Your task to perform on an android device: When is my next appointment? Image 0: 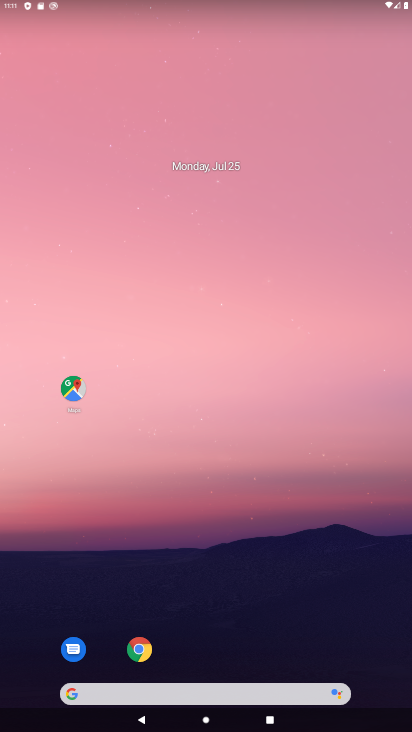
Step 0: click (239, 24)
Your task to perform on an android device: When is my next appointment? Image 1: 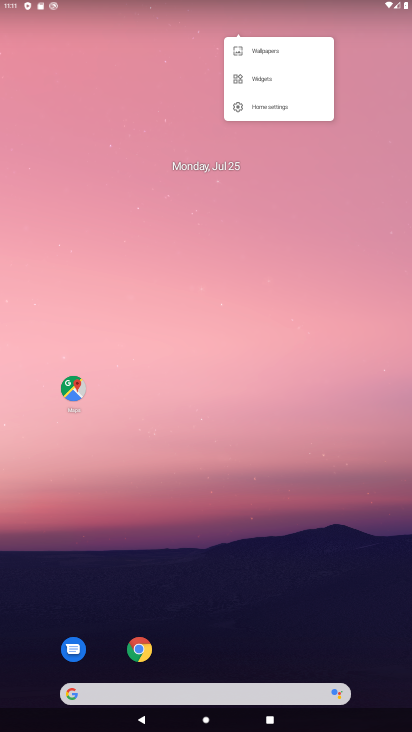
Step 1: click (186, 662)
Your task to perform on an android device: When is my next appointment? Image 2: 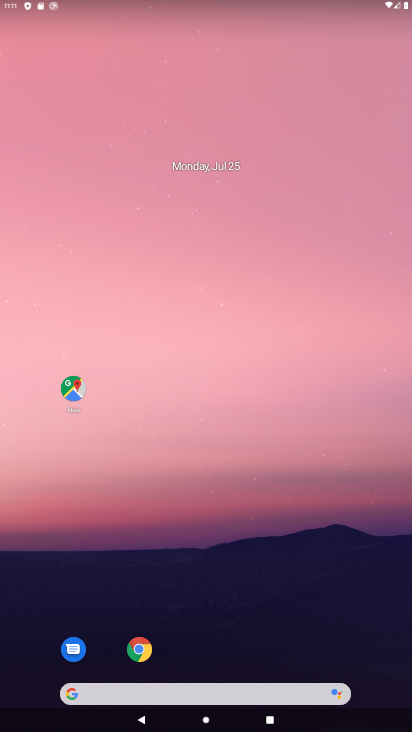
Step 2: drag from (285, 271) to (299, 230)
Your task to perform on an android device: When is my next appointment? Image 3: 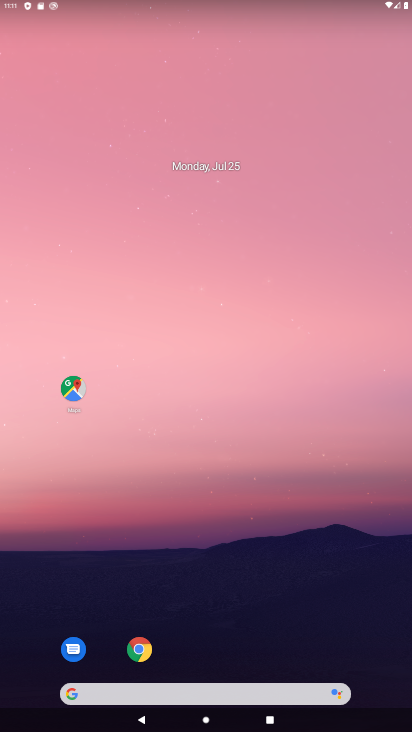
Step 3: drag from (220, 383) to (238, 265)
Your task to perform on an android device: When is my next appointment? Image 4: 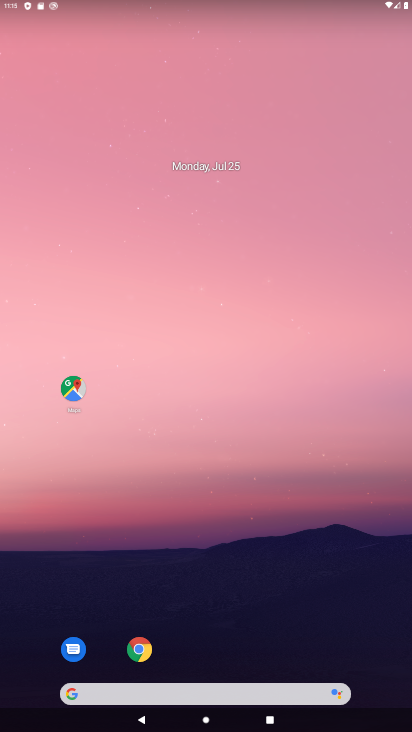
Step 4: drag from (194, 531) to (199, 50)
Your task to perform on an android device: When is my next appointment? Image 5: 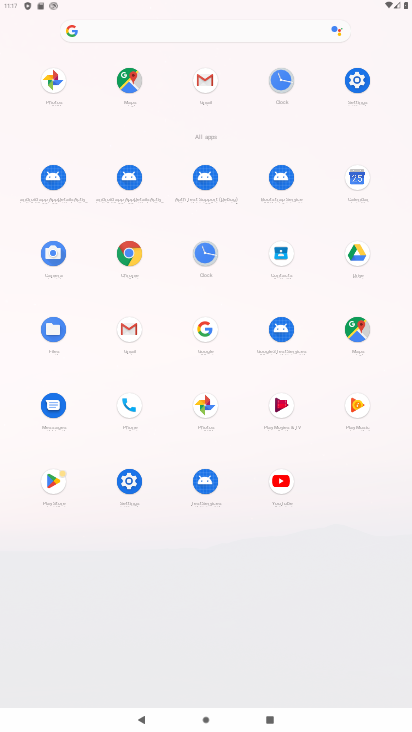
Step 5: click (369, 185)
Your task to perform on an android device: When is my next appointment? Image 6: 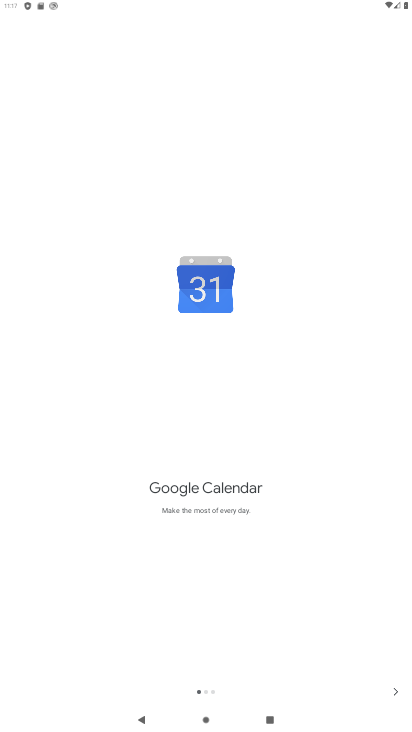
Step 6: click (391, 690)
Your task to perform on an android device: When is my next appointment? Image 7: 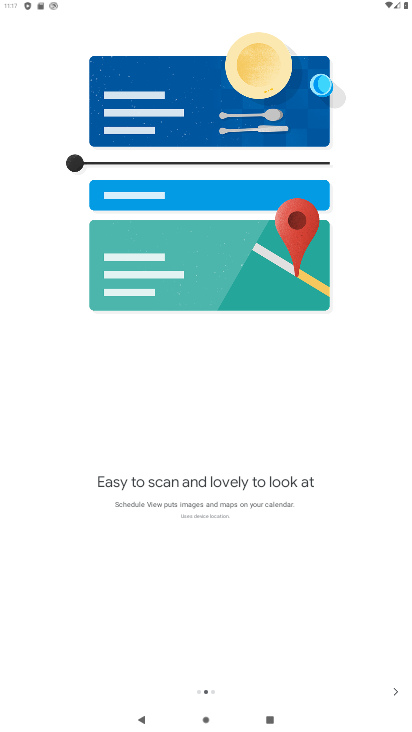
Step 7: click (391, 690)
Your task to perform on an android device: When is my next appointment? Image 8: 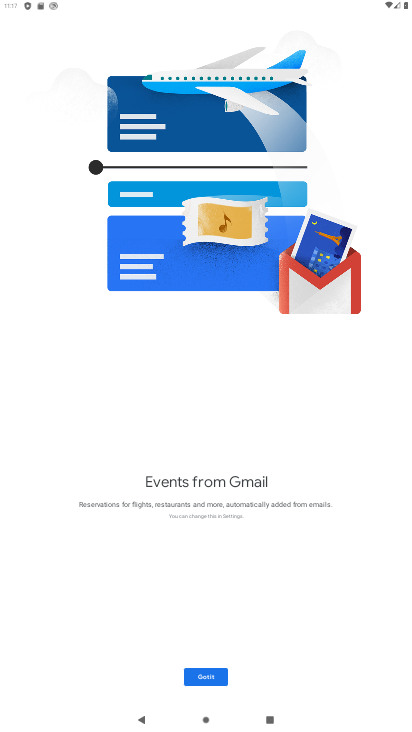
Step 8: click (391, 690)
Your task to perform on an android device: When is my next appointment? Image 9: 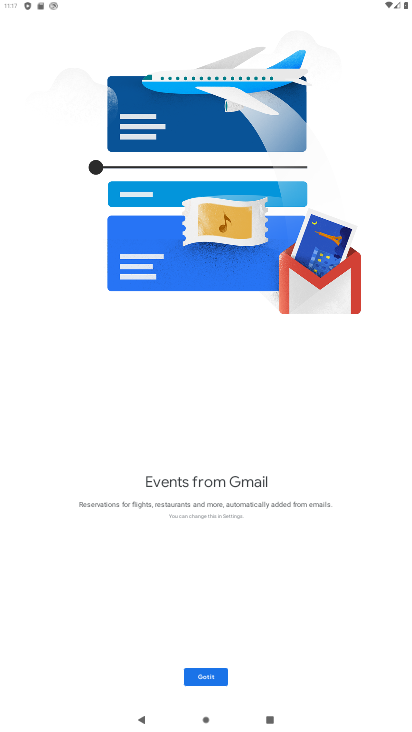
Step 9: click (195, 681)
Your task to perform on an android device: When is my next appointment? Image 10: 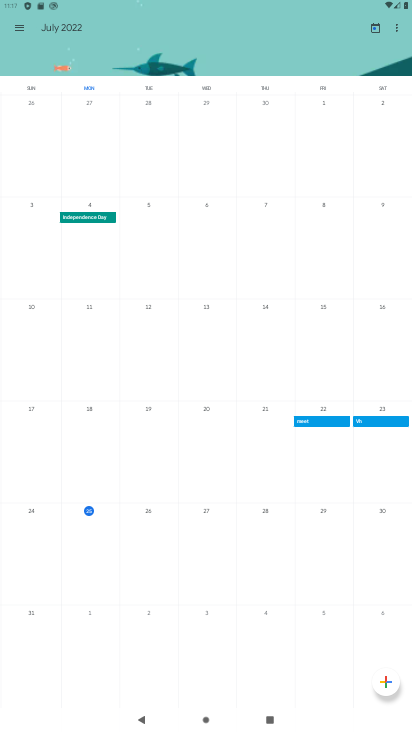
Step 10: task complete